Your task to perform on an android device: change timer sound Image 0: 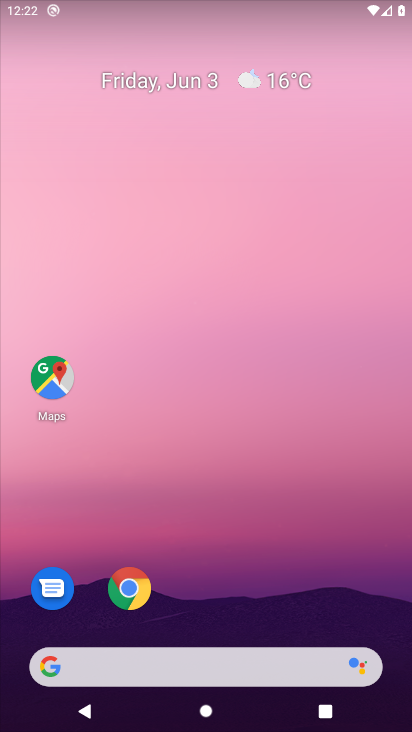
Step 0: drag from (191, 613) to (316, 1)
Your task to perform on an android device: change timer sound Image 1: 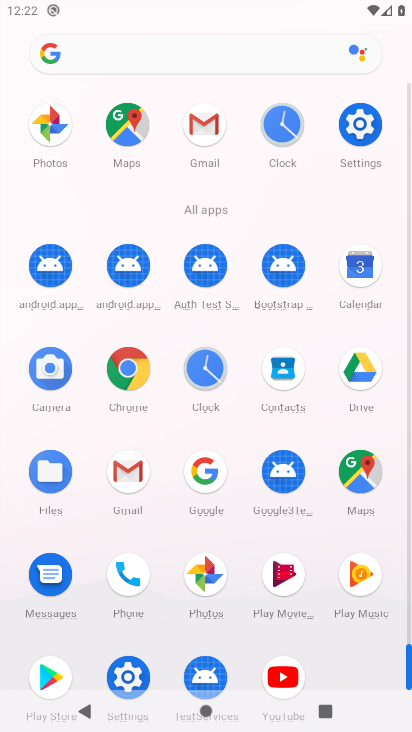
Step 1: drag from (179, 631) to (304, 1)
Your task to perform on an android device: change timer sound Image 2: 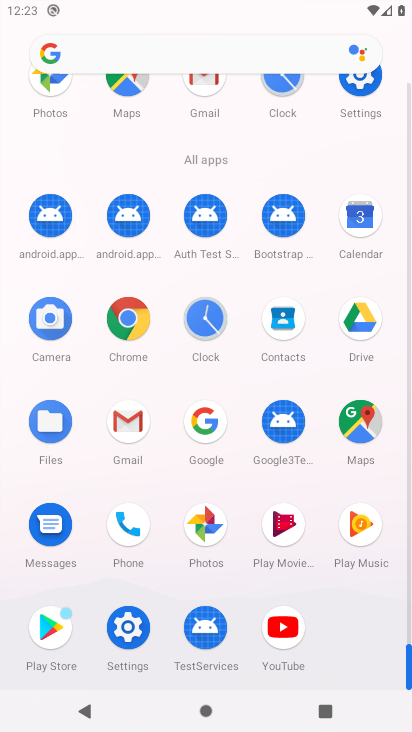
Step 2: click (195, 314)
Your task to perform on an android device: change timer sound Image 3: 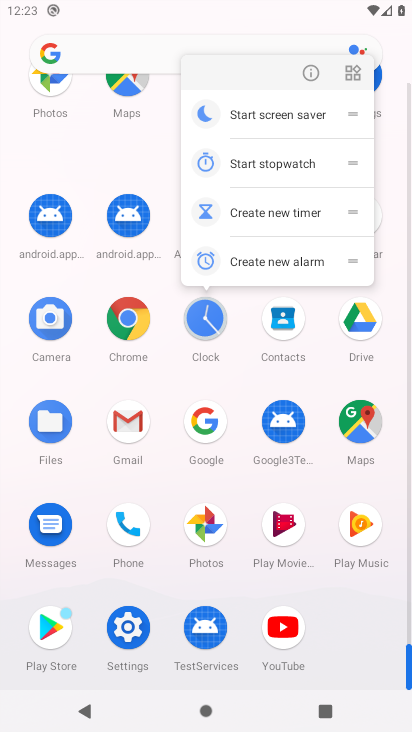
Step 3: click (314, 53)
Your task to perform on an android device: change timer sound Image 4: 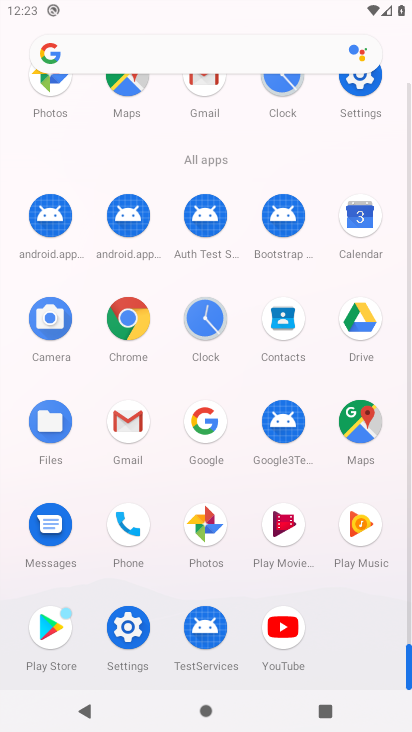
Step 4: click (212, 317)
Your task to perform on an android device: change timer sound Image 5: 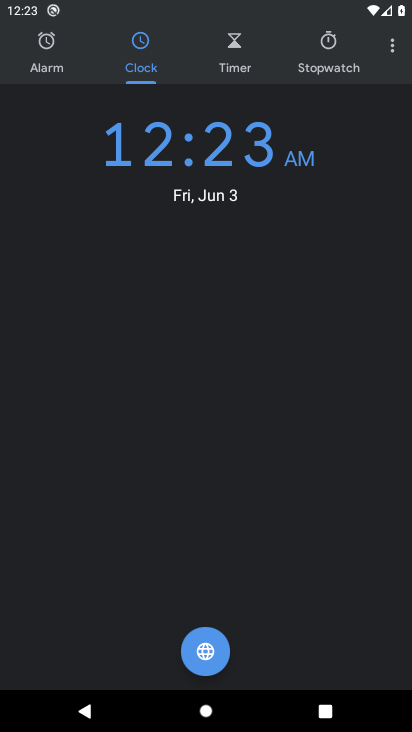
Step 5: click (380, 37)
Your task to perform on an android device: change timer sound Image 6: 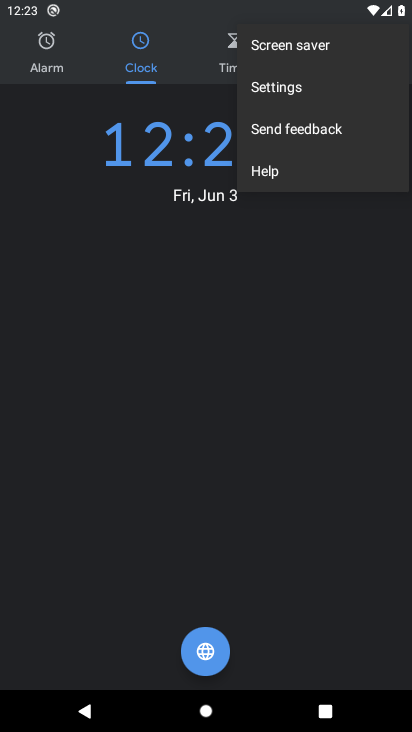
Step 6: click (309, 75)
Your task to perform on an android device: change timer sound Image 7: 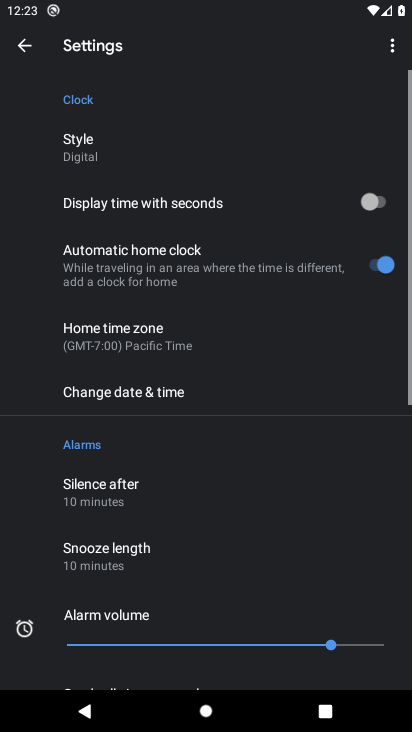
Step 7: drag from (169, 501) to (245, 97)
Your task to perform on an android device: change timer sound Image 8: 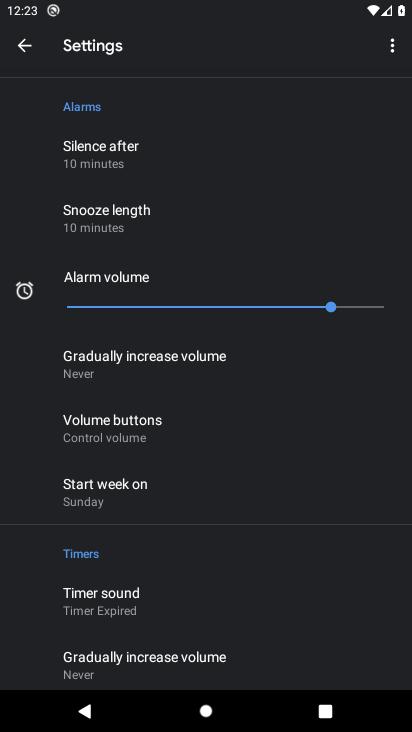
Step 8: drag from (246, 235) to (198, 730)
Your task to perform on an android device: change timer sound Image 9: 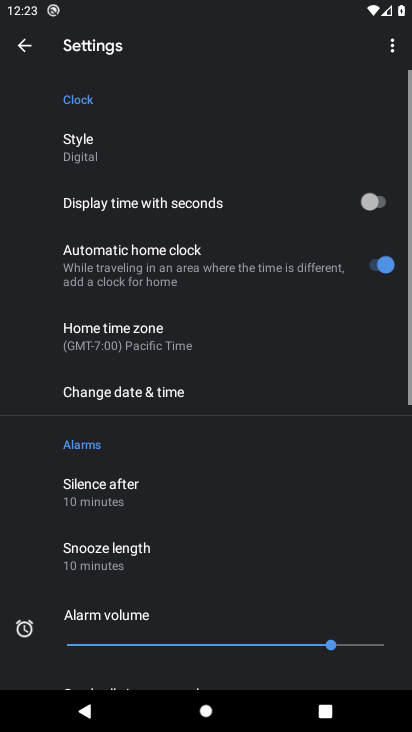
Step 9: drag from (258, 557) to (274, 38)
Your task to perform on an android device: change timer sound Image 10: 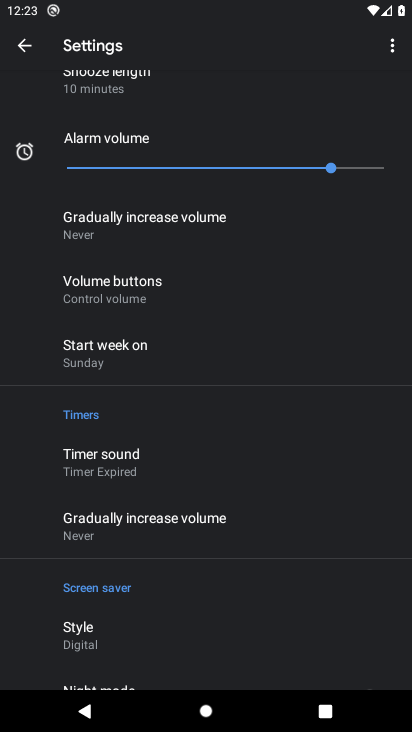
Step 10: drag from (180, 643) to (218, 327)
Your task to perform on an android device: change timer sound Image 11: 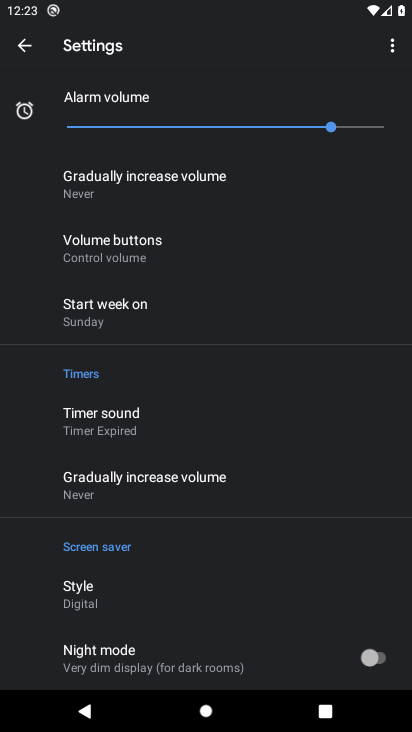
Step 11: click (129, 435)
Your task to perform on an android device: change timer sound Image 12: 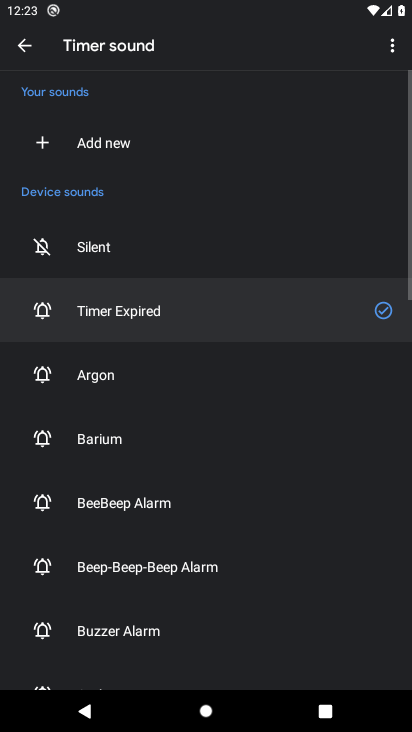
Step 12: click (131, 428)
Your task to perform on an android device: change timer sound Image 13: 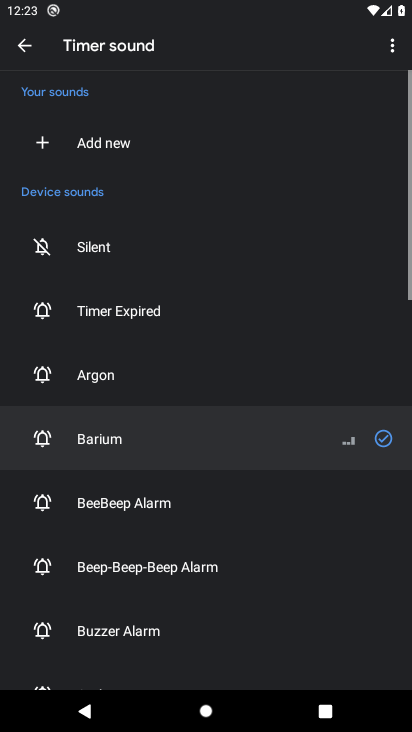
Step 13: task complete